Your task to perform on an android device: Search for Mexican restaurants on Maps Image 0: 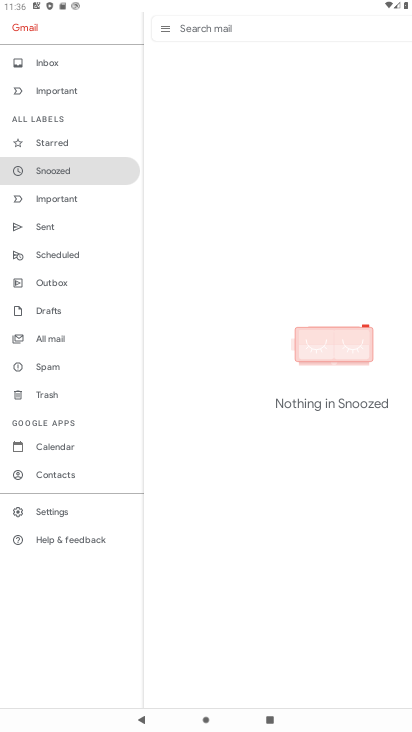
Step 0: press home button
Your task to perform on an android device: Search for Mexican restaurants on Maps Image 1: 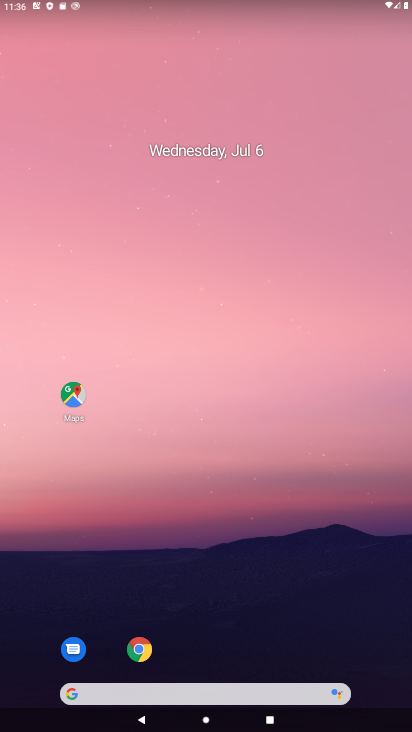
Step 1: click (61, 395)
Your task to perform on an android device: Search for Mexican restaurants on Maps Image 2: 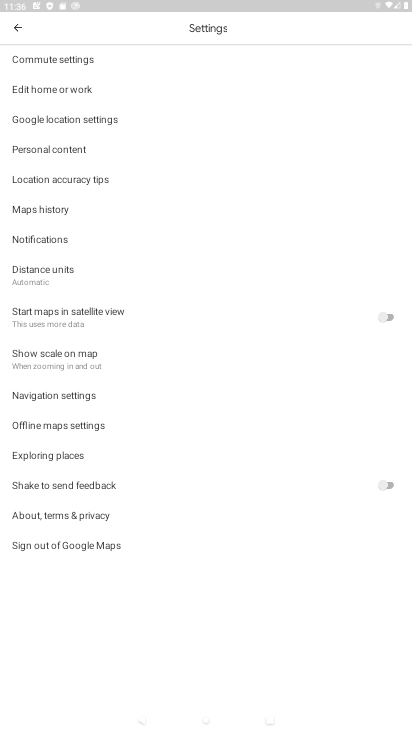
Step 2: click (12, 31)
Your task to perform on an android device: Search for Mexican restaurants on Maps Image 3: 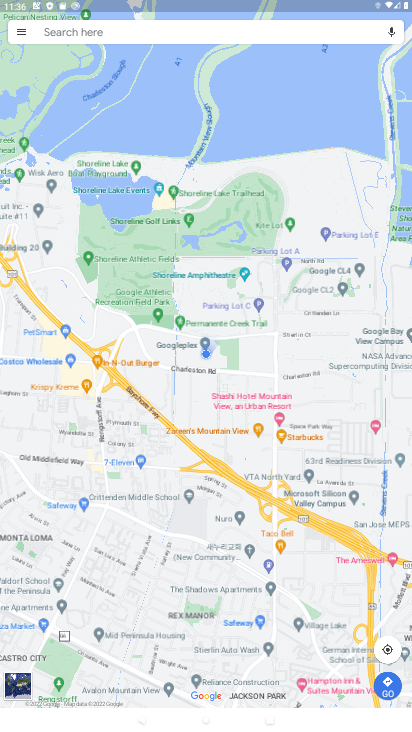
Step 3: click (62, 30)
Your task to perform on an android device: Search for Mexican restaurants on Maps Image 4: 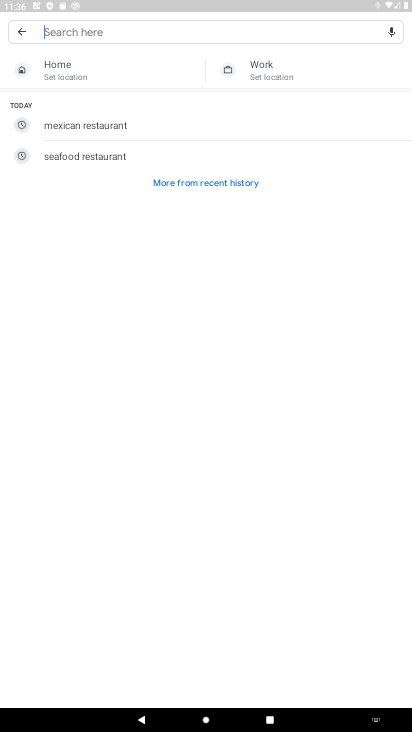
Step 4: type "Mexican restaurants"
Your task to perform on an android device: Search for Mexican restaurants on Maps Image 5: 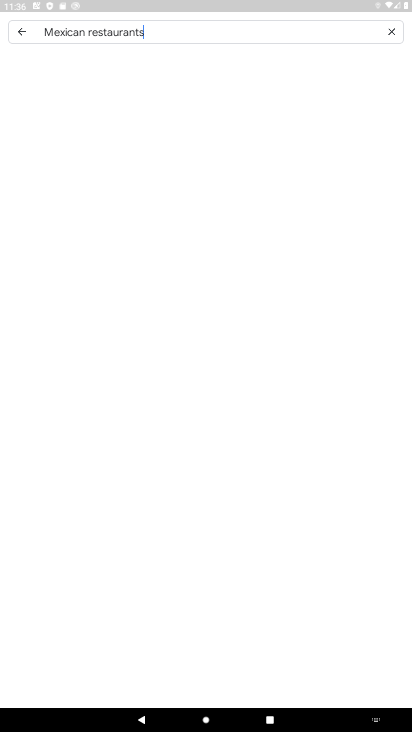
Step 5: type ""
Your task to perform on an android device: Search for Mexican restaurants on Maps Image 6: 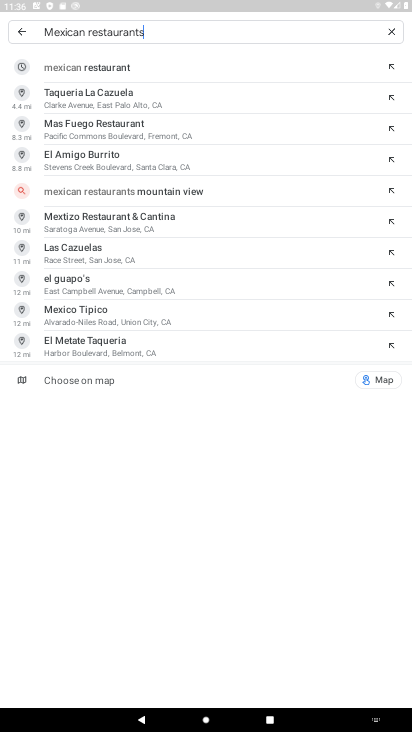
Step 6: click (105, 74)
Your task to perform on an android device: Search for Mexican restaurants on Maps Image 7: 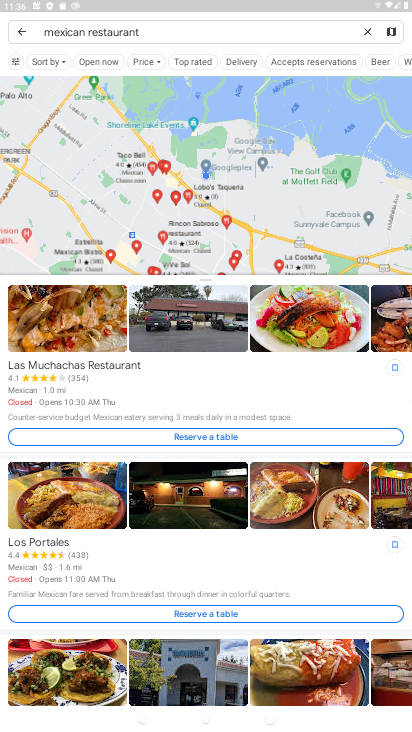
Step 7: task complete